Your task to perform on an android device: open app "Etsy: Buy & Sell Unique Items" Image 0: 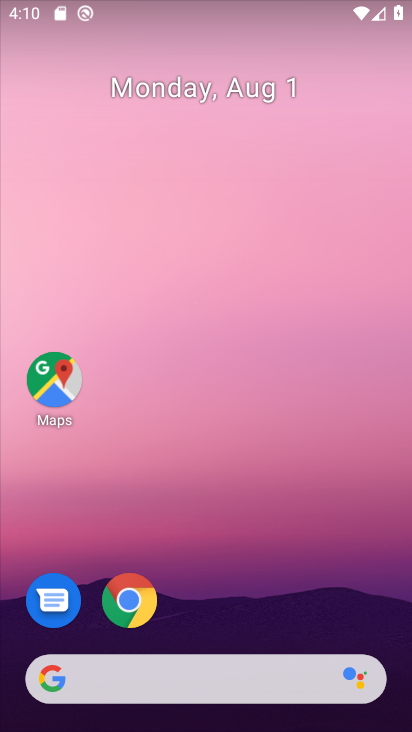
Step 0: drag from (257, 611) to (284, 185)
Your task to perform on an android device: open app "Etsy: Buy & Sell Unique Items" Image 1: 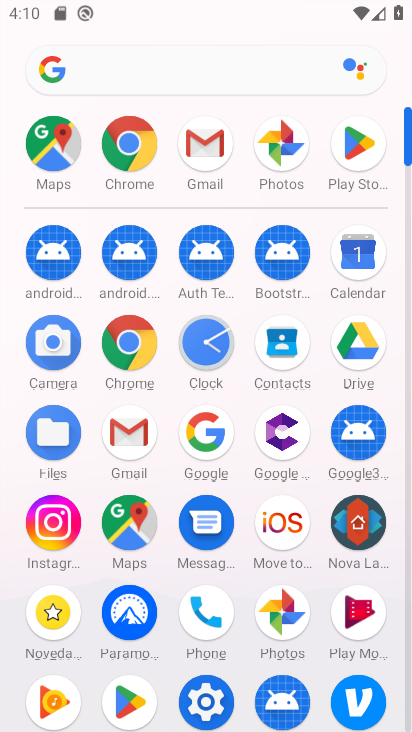
Step 1: click (364, 138)
Your task to perform on an android device: open app "Etsy: Buy & Sell Unique Items" Image 2: 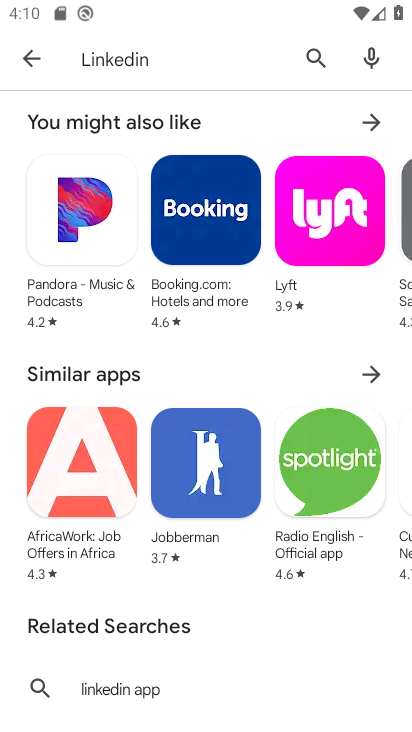
Step 2: click (212, 73)
Your task to perform on an android device: open app "Etsy: Buy & Sell Unique Items" Image 3: 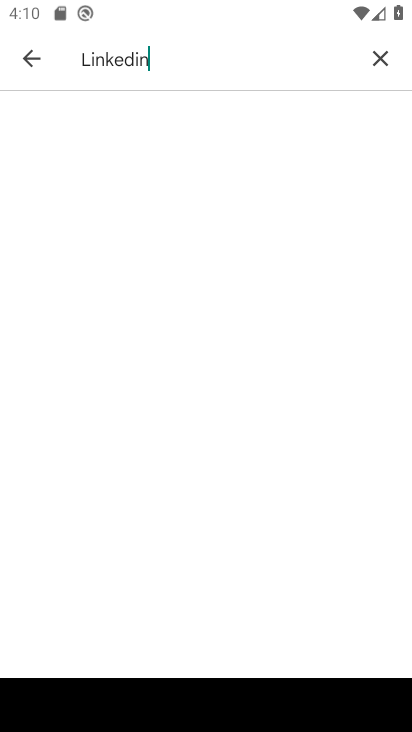
Step 3: click (379, 63)
Your task to perform on an android device: open app "Etsy: Buy & Sell Unique Items" Image 4: 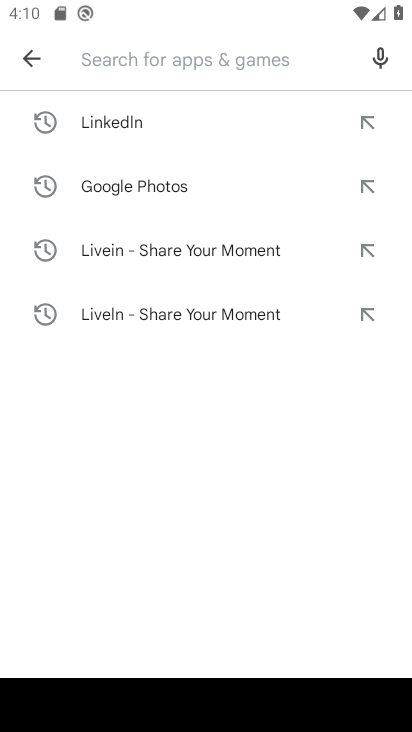
Step 4: type "Esty: Buy & Sell Unique Items"
Your task to perform on an android device: open app "Etsy: Buy & Sell Unique Items" Image 5: 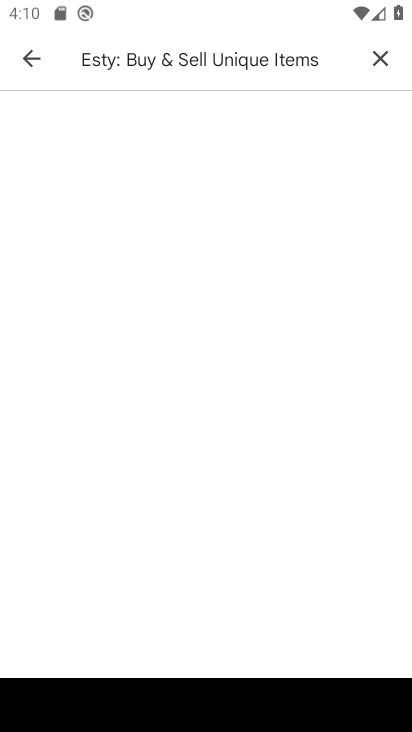
Step 5: press enter
Your task to perform on an android device: open app "Etsy: Buy & Sell Unique Items" Image 6: 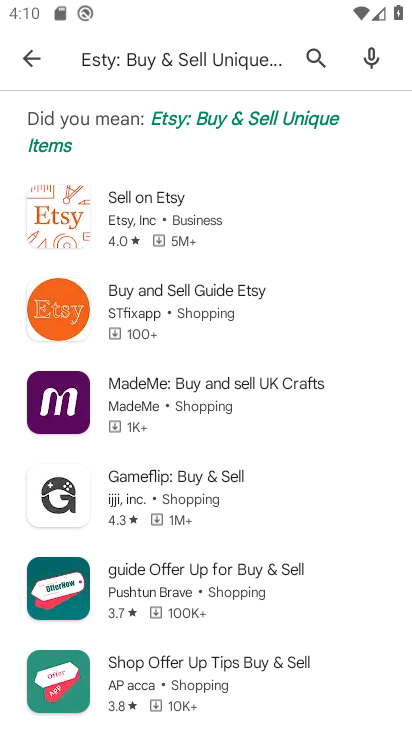
Step 6: click (280, 124)
Your task to perform on an android device: open app "Etsy: Buy & Sell Unique Items" Image 7: 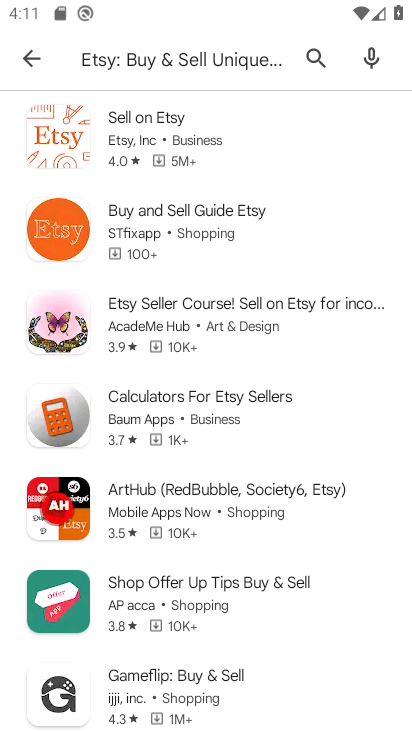
Step 7: task complete